Your task to perform on an android device: Go to network settings Image 0: 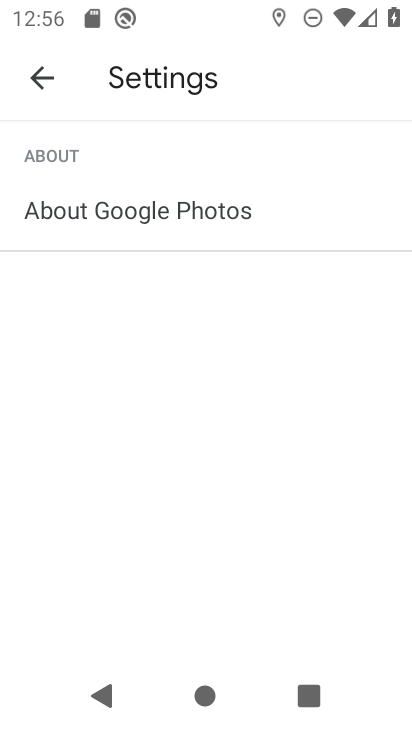
Step 0: press home button
Your task to perform on an android device: Go to network settings Image 1: 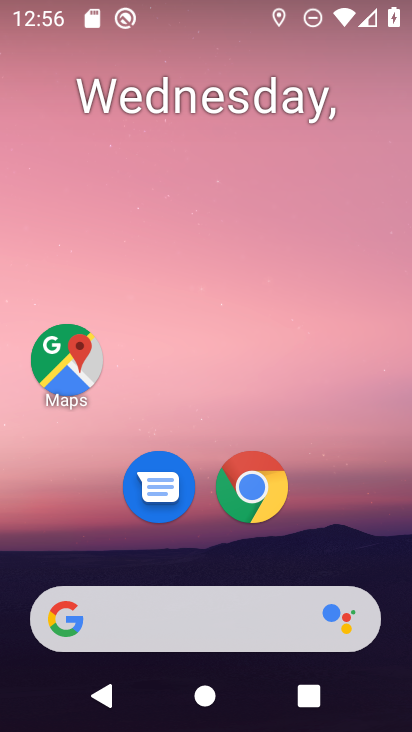
Step 1: drag from (323, 528) to (360, 174)
Your task to perform on an android device: Go to network settings Image 2: 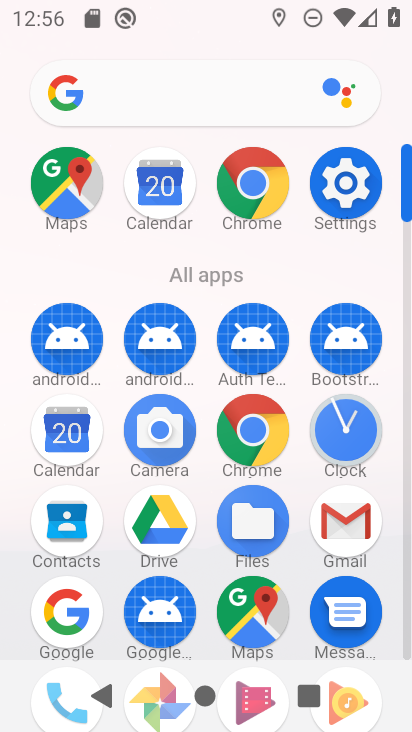
Step 2: click (361, 190)
Your task to perform on an android device: Go to network settings Image 3: 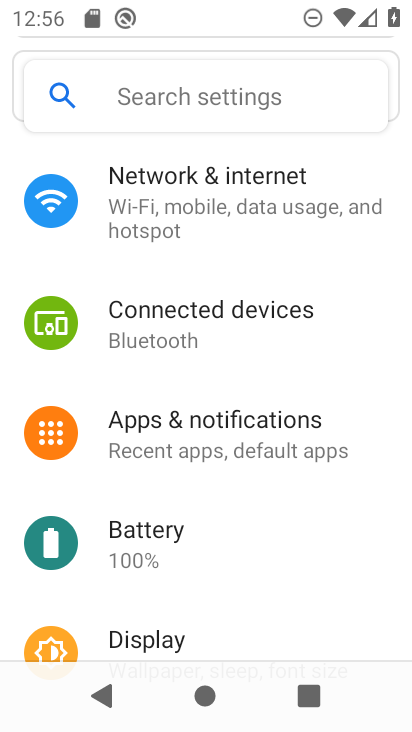
Step 3: drag from (350, 585) to (366, 426)
Your task to perform on an android device: Go to network settings Image 4: 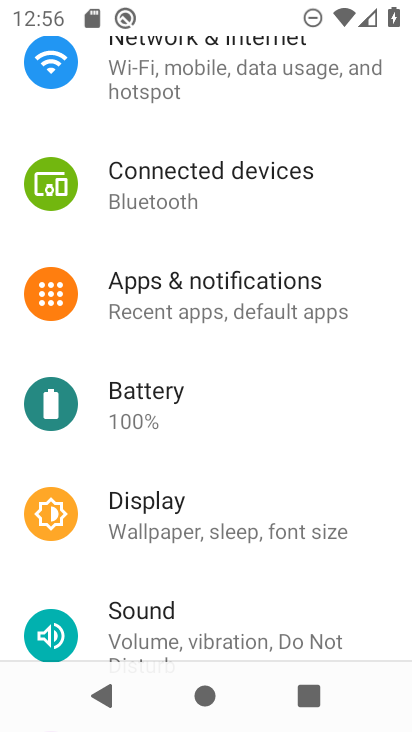
Step 4: drag from (343, 585) to (365, 397)
Your task to perform on an android device: Go to network settings Image 5: 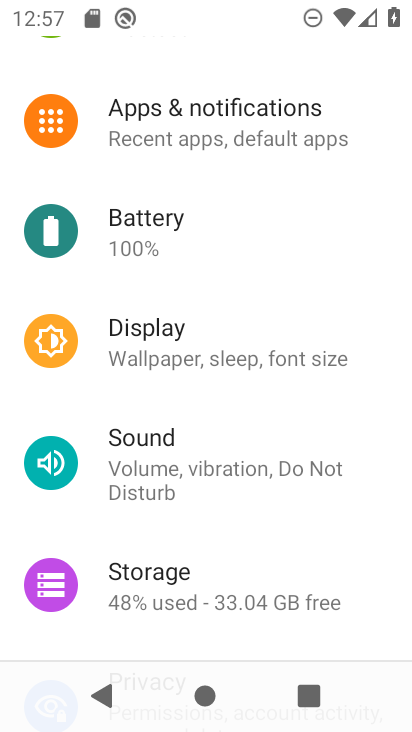
Step 5: drag from (330, 415) to (330, 285)
Your task to perform on an android device: Go to network settings Image 6: 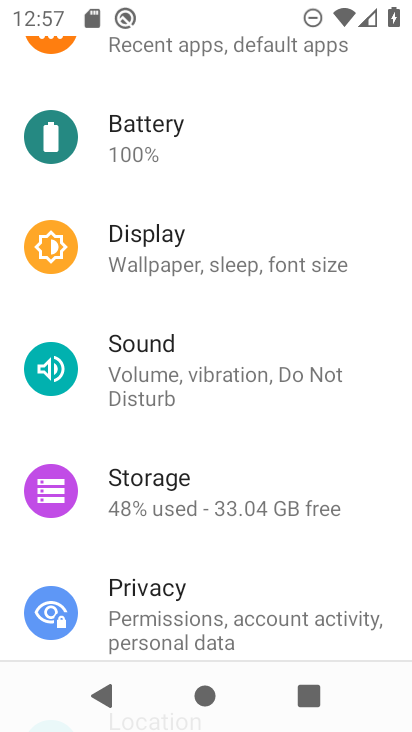
Step 6: drag from (353, 465) to (345, 304)
Your task to perform on an android device: Go to network settings Image 7: 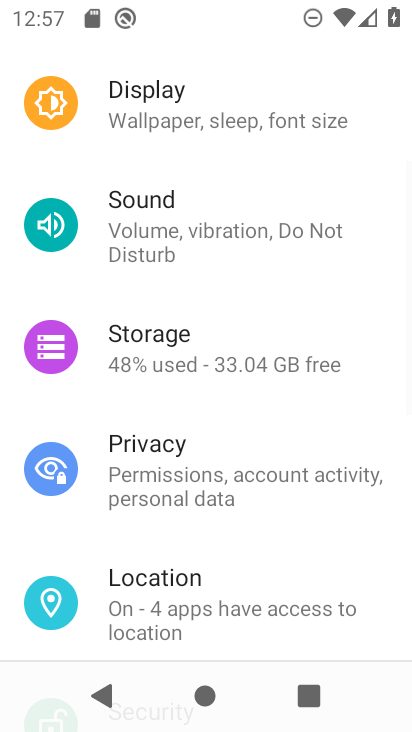
Step 7: drag from (344, 186) to (360, 346)
Your task to perform on an android device: Go to network settings Image 8: 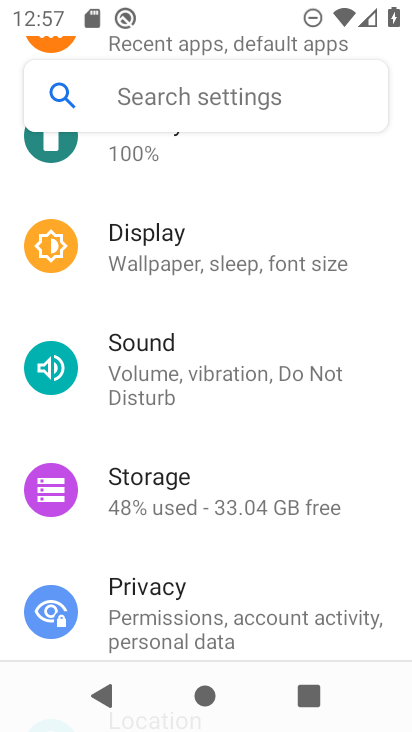
Step 8: drag from (363, 194) to (375, 330)
Your task to perform on an android device: Go to network settings Image 9: 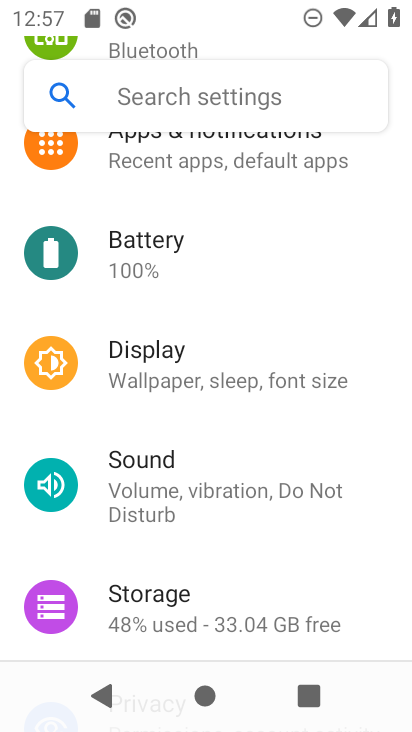
Step 9: drag from (368, 195) to (369, 361)
Your task to perform on an android device: Go to network settings Image 10: 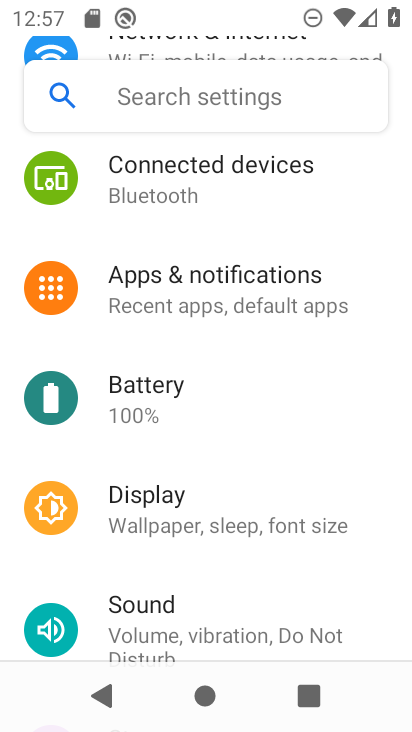
Step 10: drag from (362, 162) to (362, 341)
Your task to perform on an android device: Go to network settings Image 11: 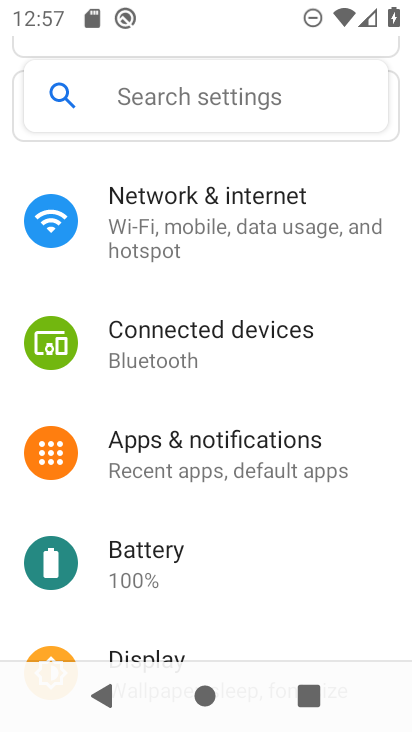
Step 11: click (268, 222)
Your task to perform on an android device: Go to network settings Image 12: 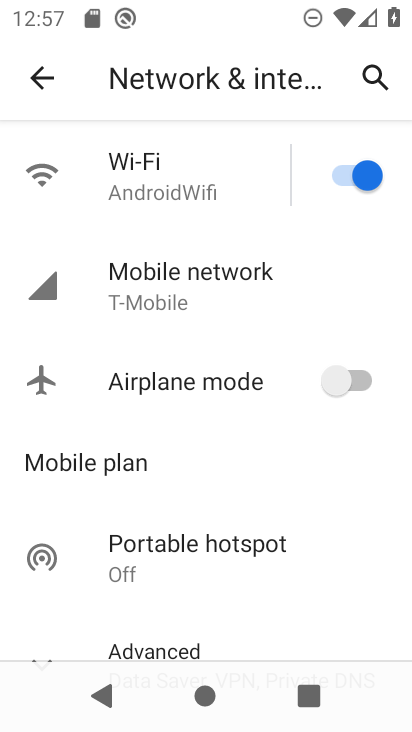
Step 12: task complete